Your task to perform on an android device: Open the web browser Image 0: 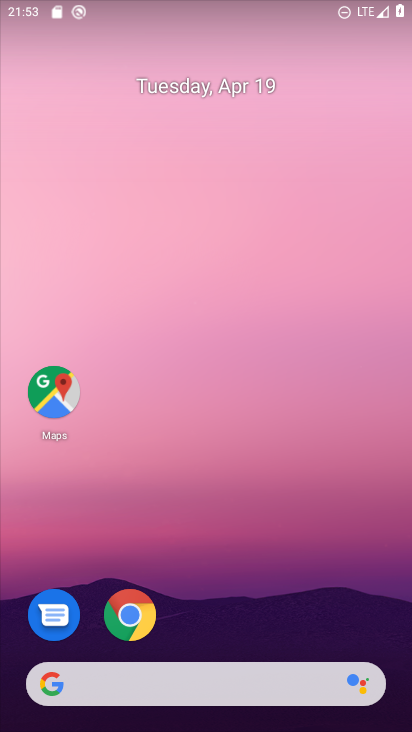
Step 0: click (197, 671)
Your task to perform on an android device: Open the web browser Image 1: 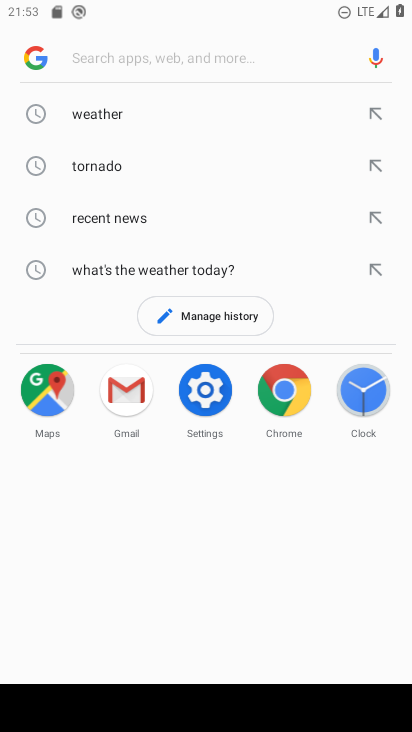
Step 1: task complete